Your task to perform on an android device: Open ESPN.com Image 0: 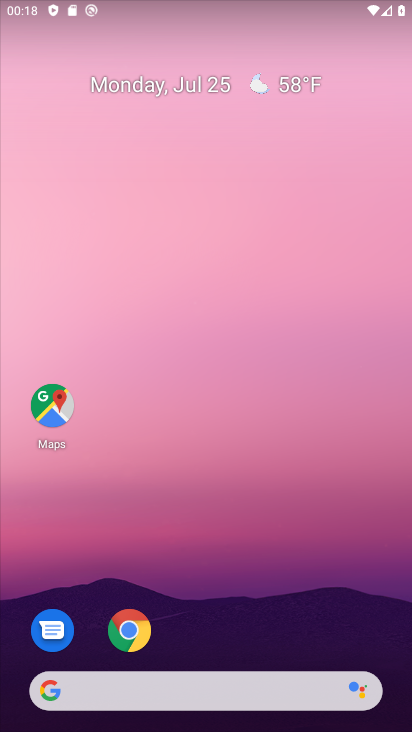
Step 0: drag from (211, 639) to (276, 4)
Your task to perform on an android device: Open ESPN.com Image 1: 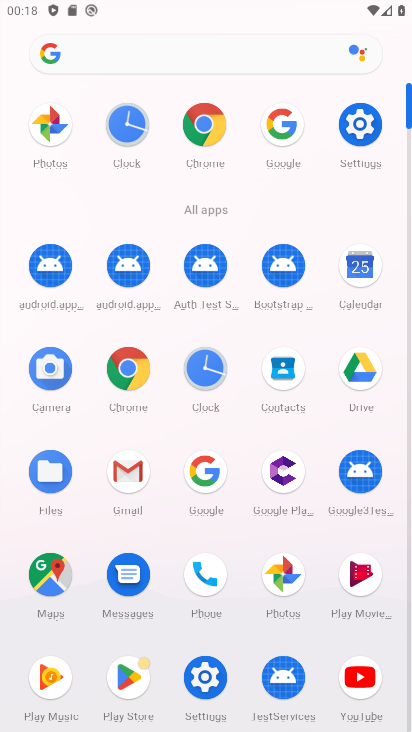
Step 1: click (215, 131)
Your task to perform on an android device: Open ESPN.com Image 2: 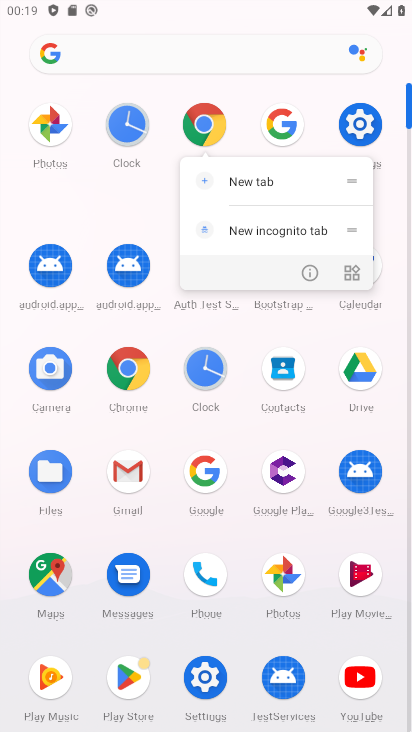
Step 2: click (215, 130)
Your task to perform on an android device: Open ESPN.com Image 3: 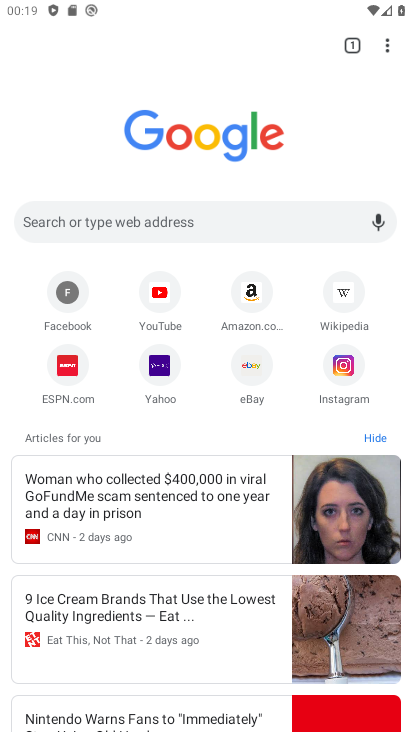
Step 3: click (55, 385)
Your task to perform on an android device: Open ESPN.com Image 4: 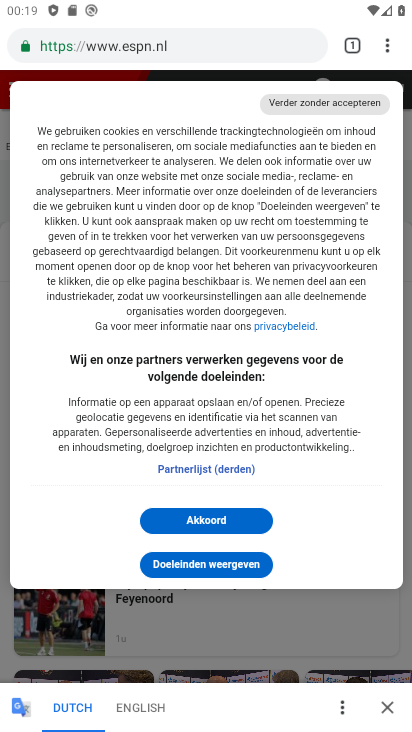
Step 4: task complete